Your task to perform on an android device: Clear all items from cart on newegg. Add "razer nari" to the cart on newegg Image 0: 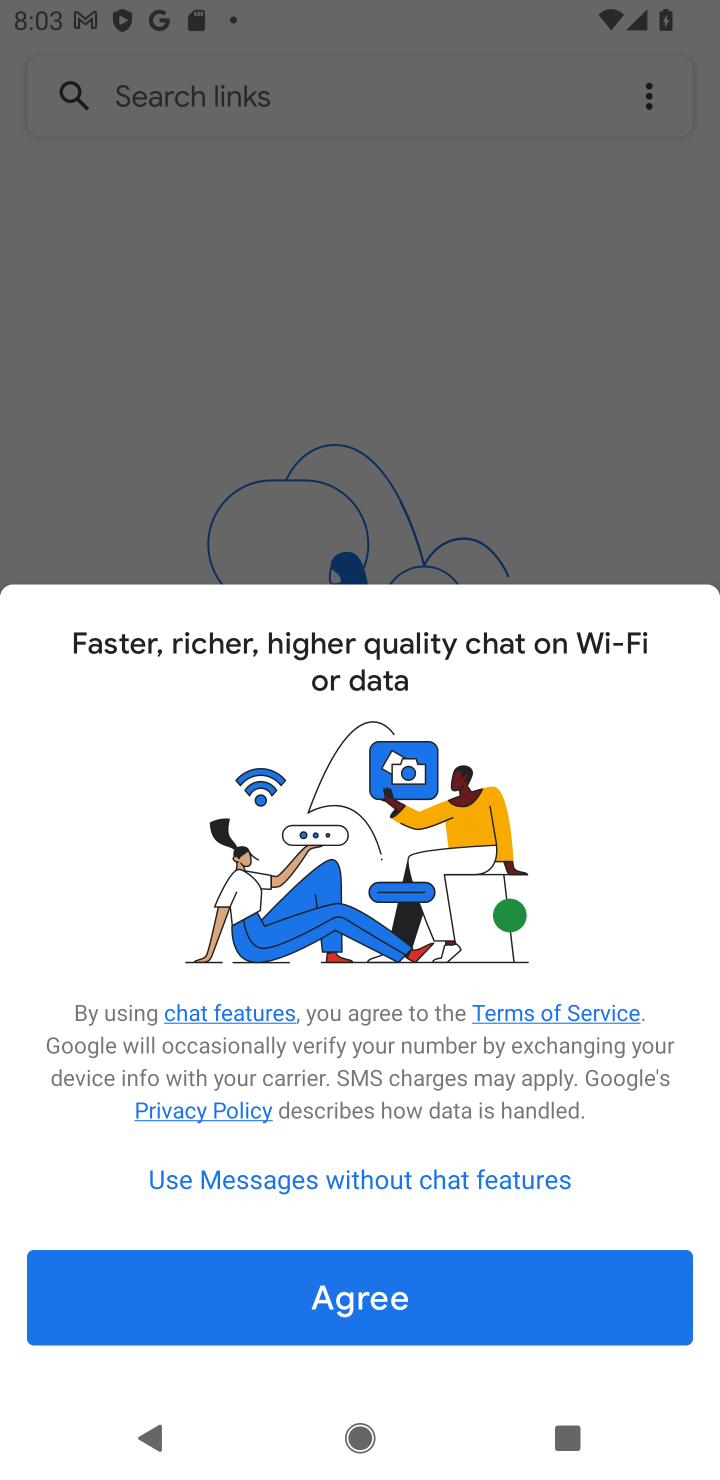
Step 0: press home button
Your task to perform on an android device: Clear all items from cart on newegg. Add "razer nari" to the cart on newegg Image 1: 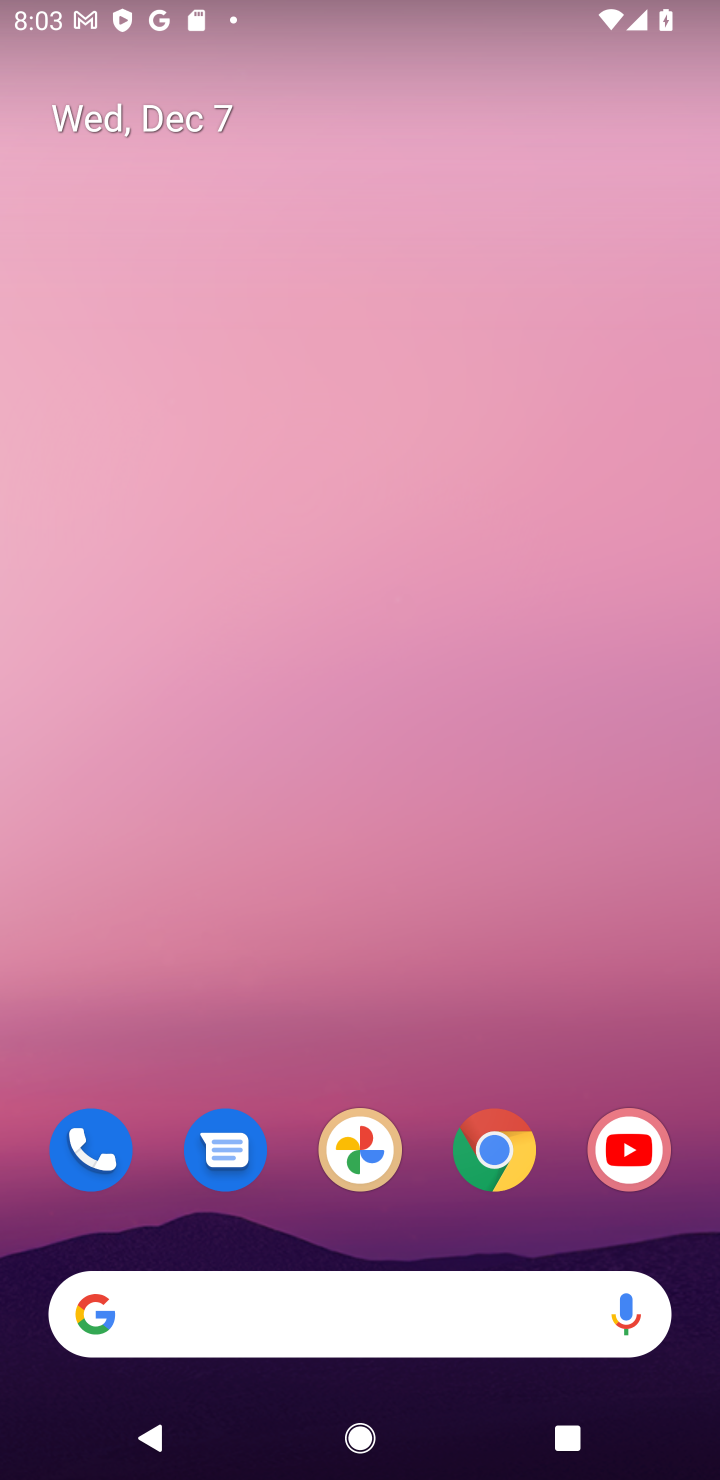
Step 1: click (511, 1151)
Your task to perform on an android device: Clear all items from cart on newegg. Add "razer nari" to the cart on newegg Image 2: 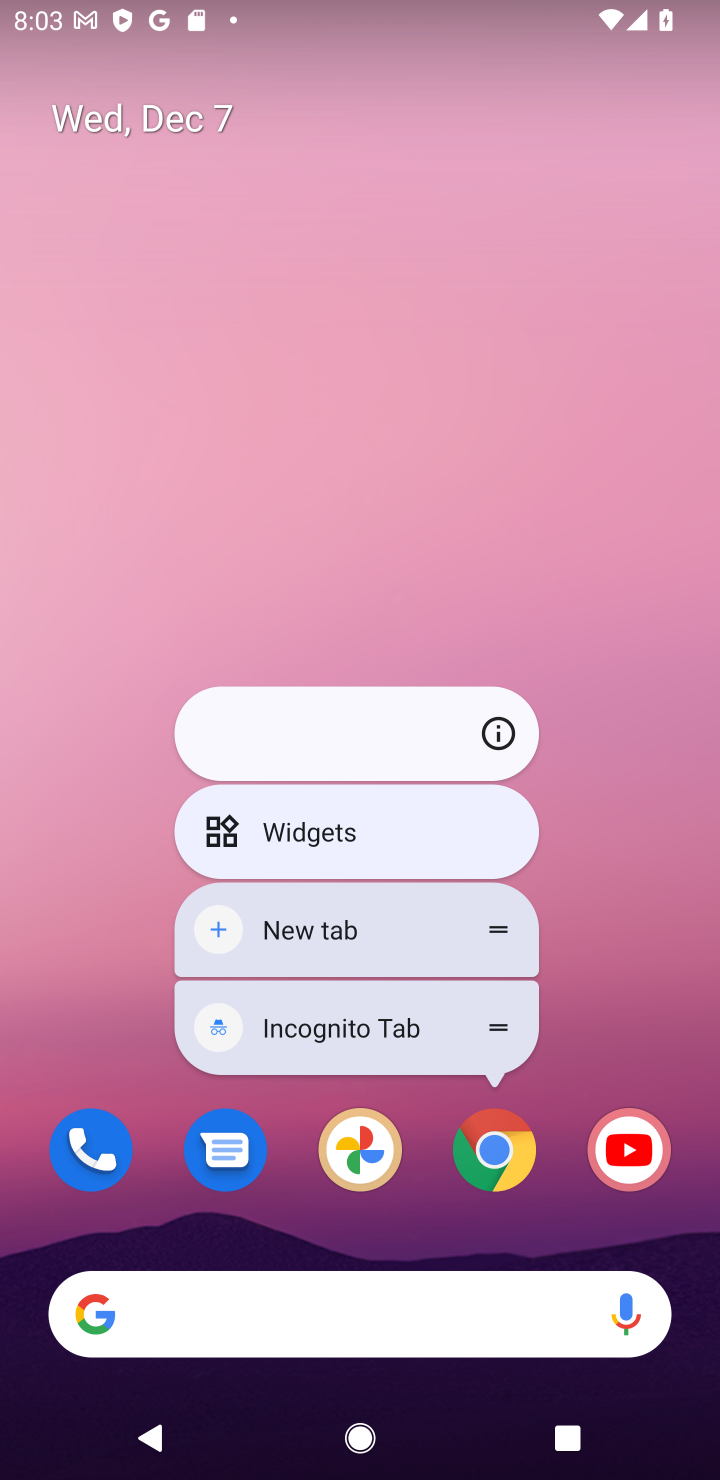
Step 2: click (511, 1151)
Your task to perform on an android device: Clear all items from cart on newegg. Add "razer nari" to the cart on newegg Image 3: 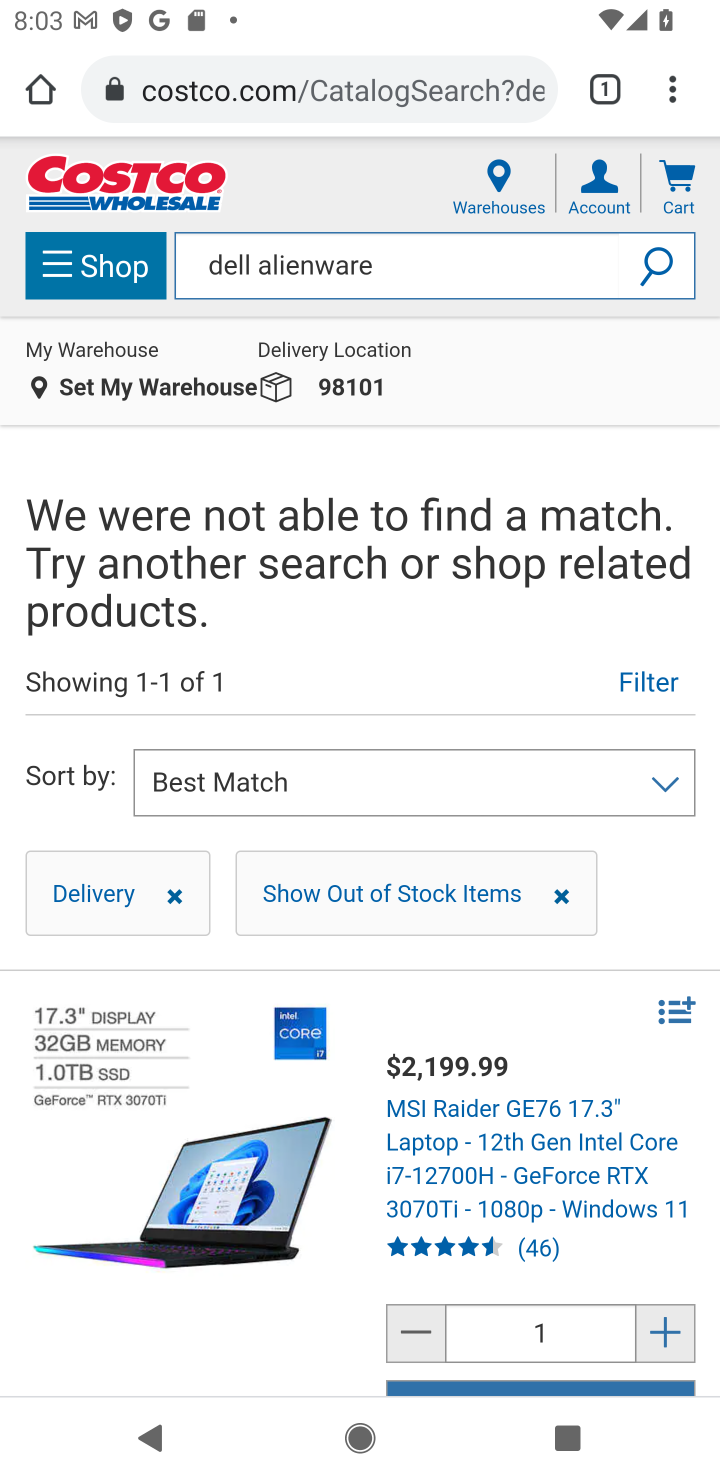
Step 3: click (366, 75)
Your task to perform on an android device: Clear all items from cart on newegg. Add "razer nari" to the cart on newegg Image 4: 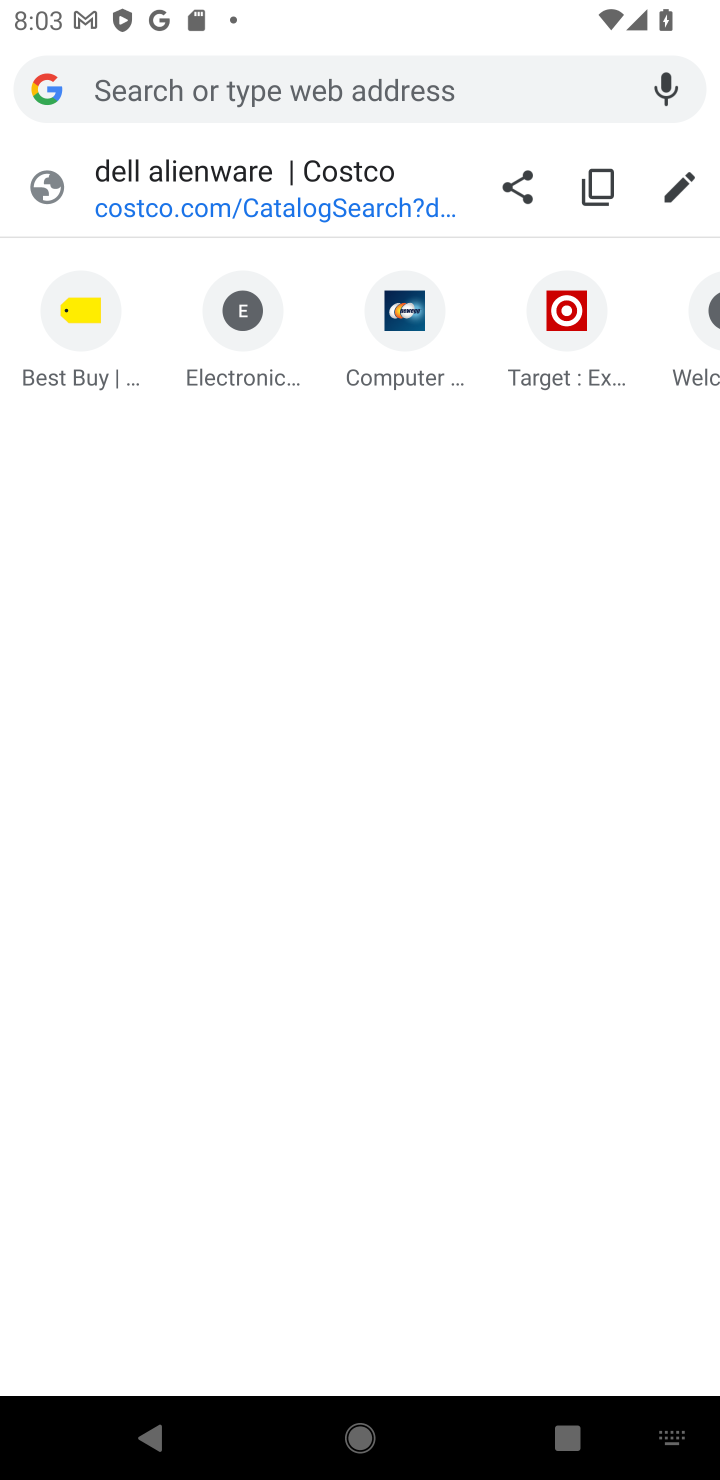
Step 4: type "newegg"
Your task to perform on an android device: Clear all items from cart on newegg. Add "razer nari" to the cart on newegg Image 5: 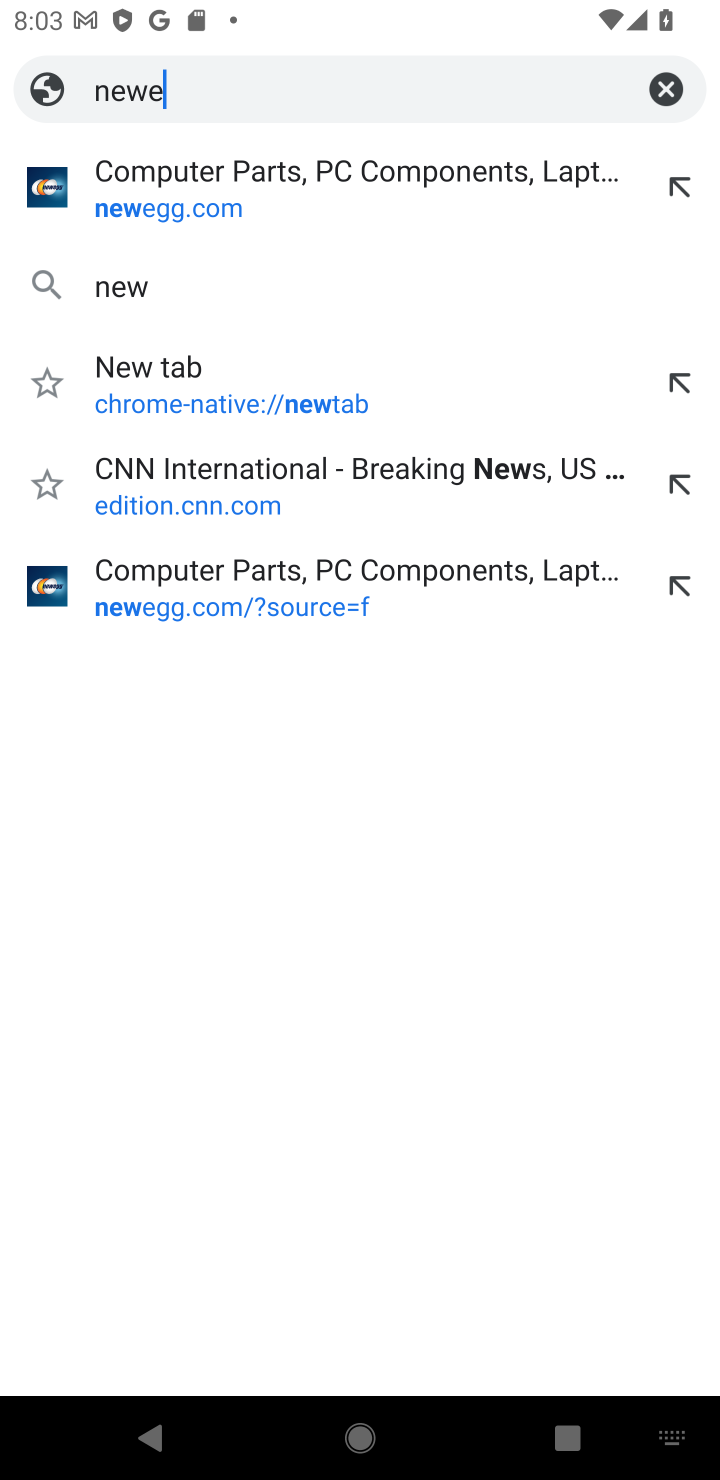
Step 5: press enter
Your task to perform on an android device: Clear all items from cart on newegg. Add "razer nari" to the cart on newegg Image 6: 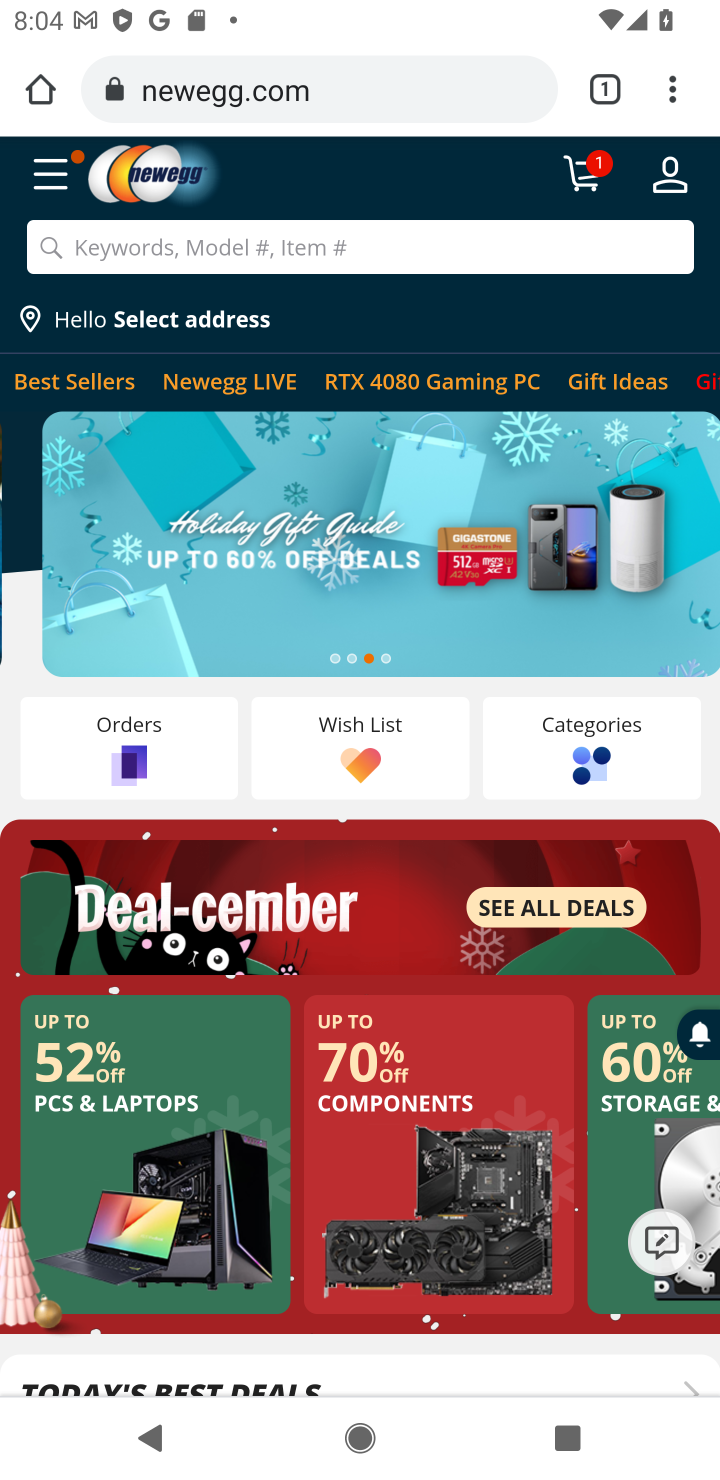
Step 6: click (580, 190)
Your task to perform on an android device: Clear all items from cart on newegg. Add "razer nari" to the cart on newegg Image 7: 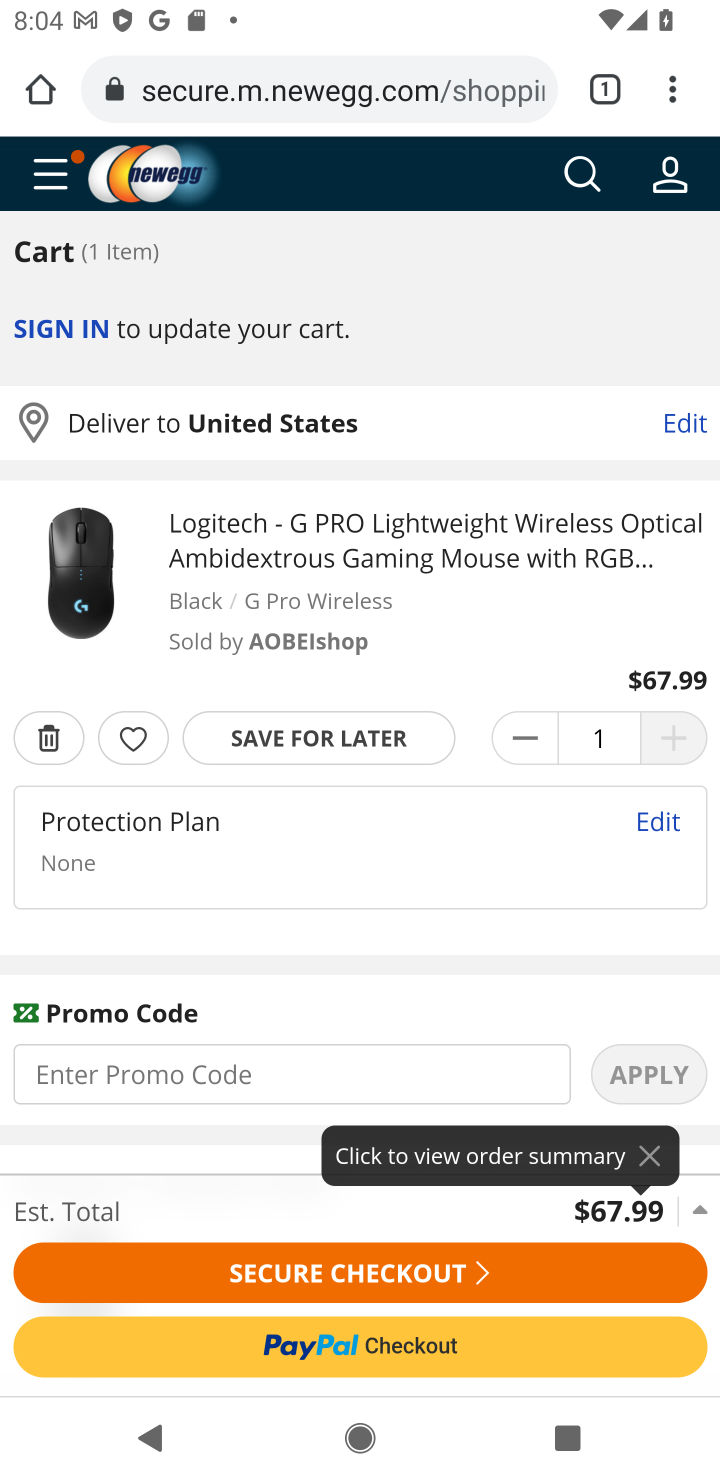
Step 7: click (51, 739)
Your task to perform on an android device: Clear all items from cart on newegg. Add "razer nari" to the cart on newegg Image 8: 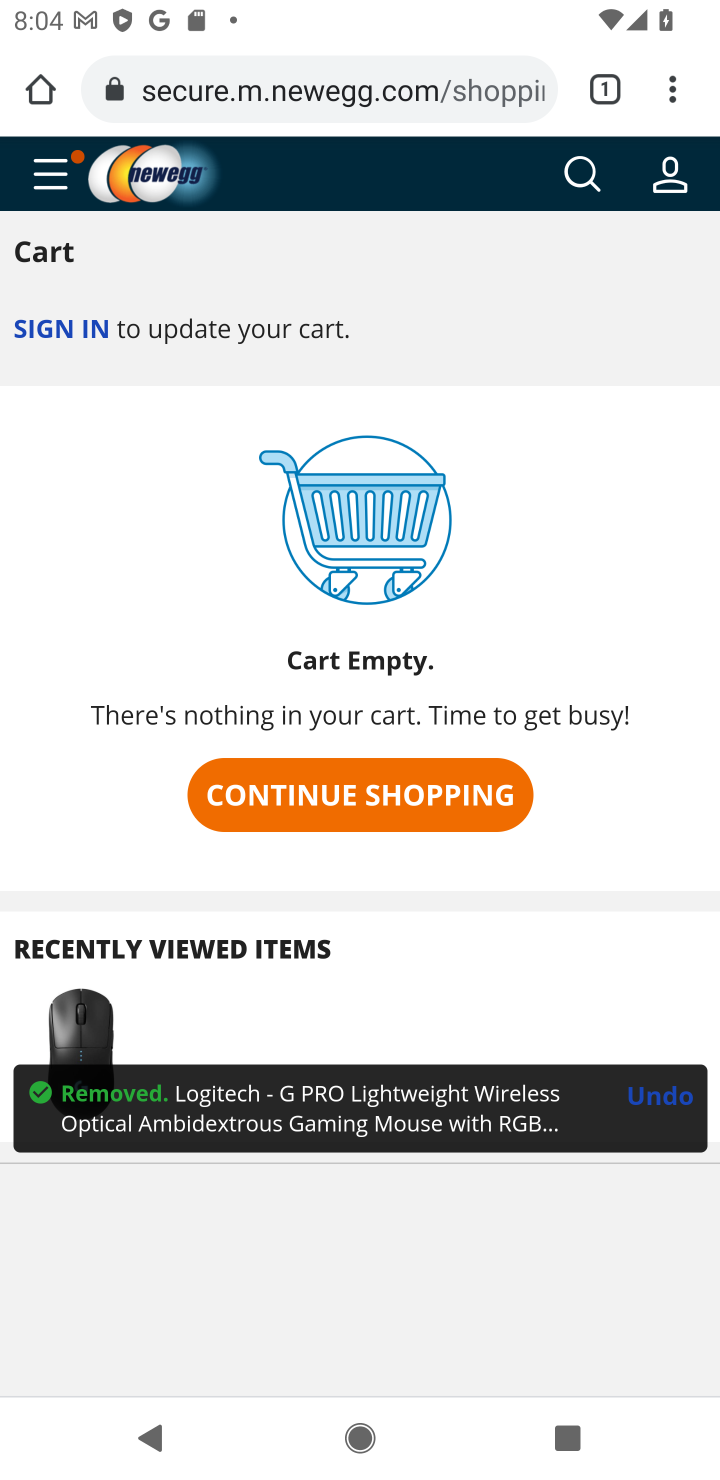
Step 8: click (575, 178)
Your task to perform on an android device: Clear all items from cart on newegg. Add "razer nari" to the cart on newegg Image 9: 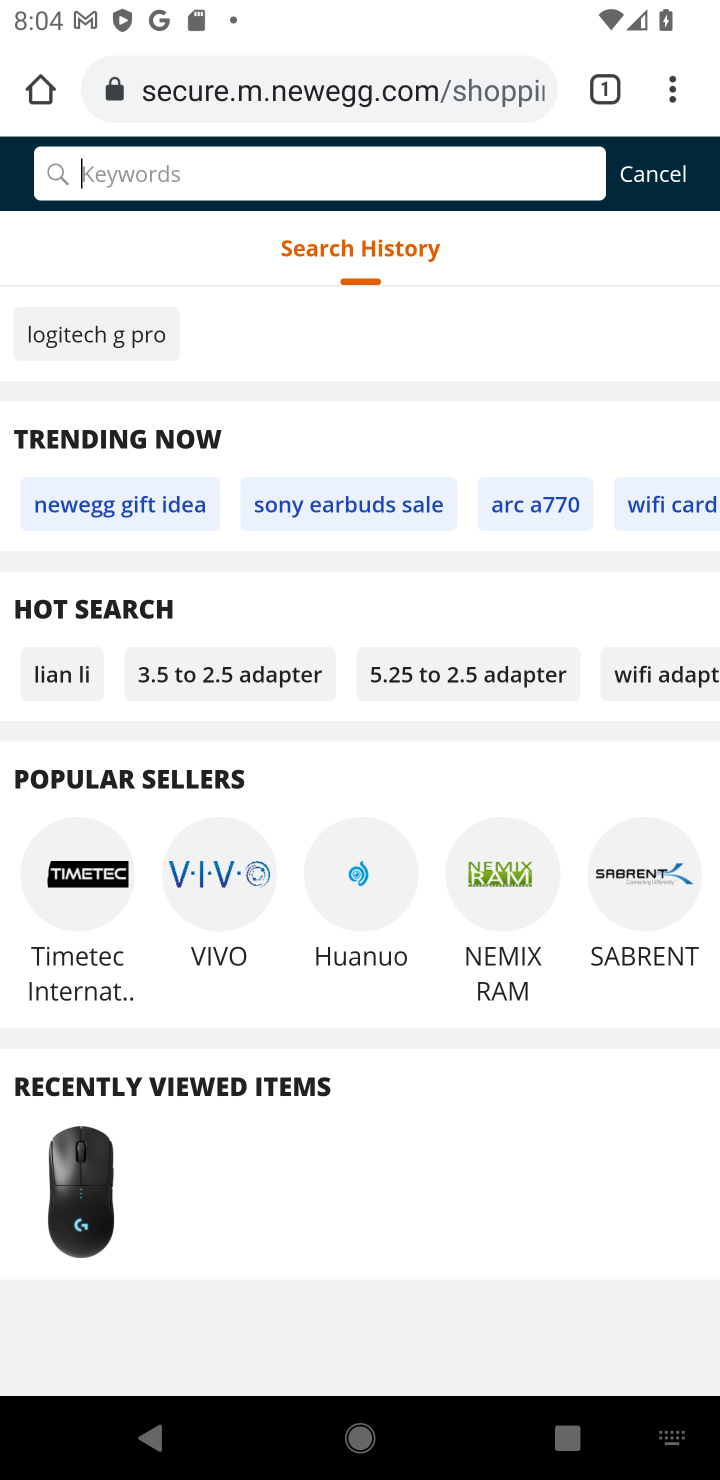
Step 9: press enter
Your task to perform on an android device: Clear all items from cart on newegg. Add "razer nari" to the cart on newegg Image 10: 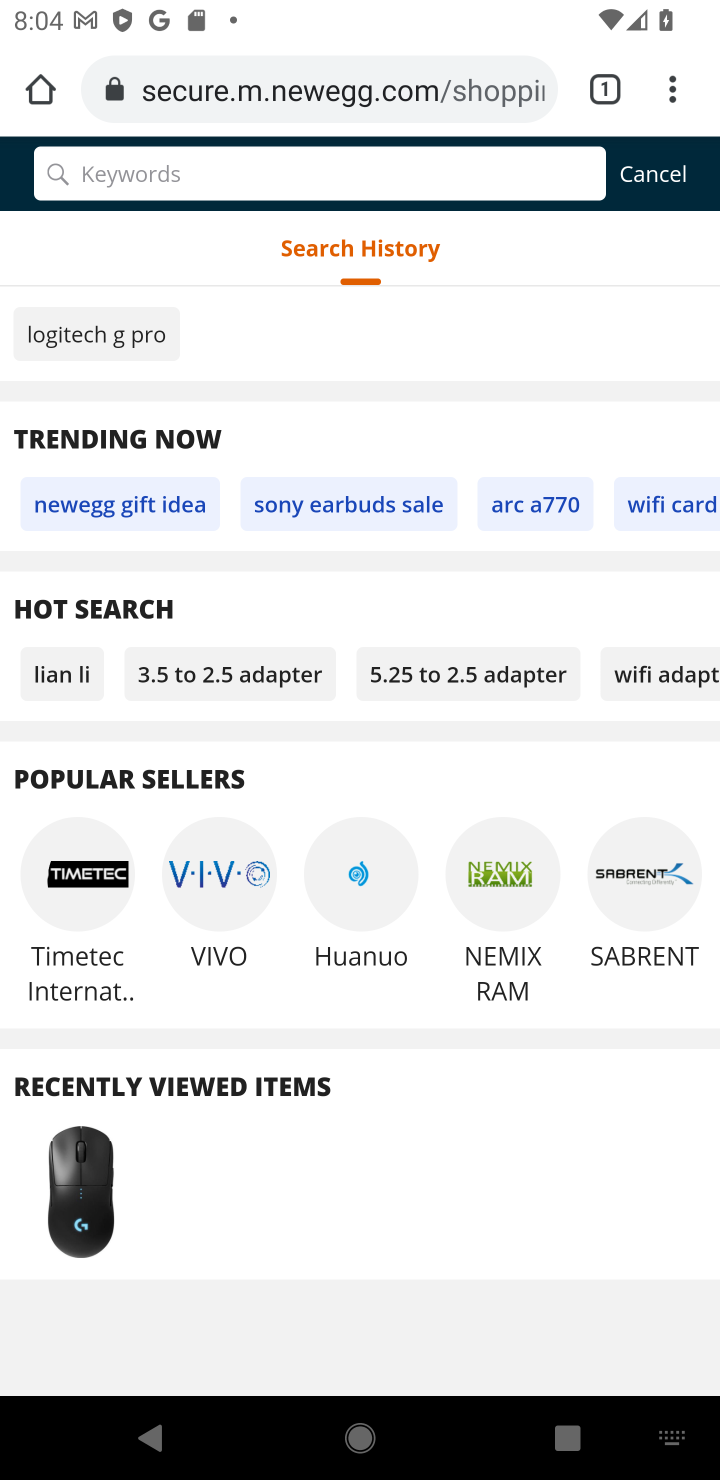
Step 10: type "razer nari"
Your task to perform on an android device: Clear all items from cart on newegg. Add "razer nari" to the cart on newegg Image 11: 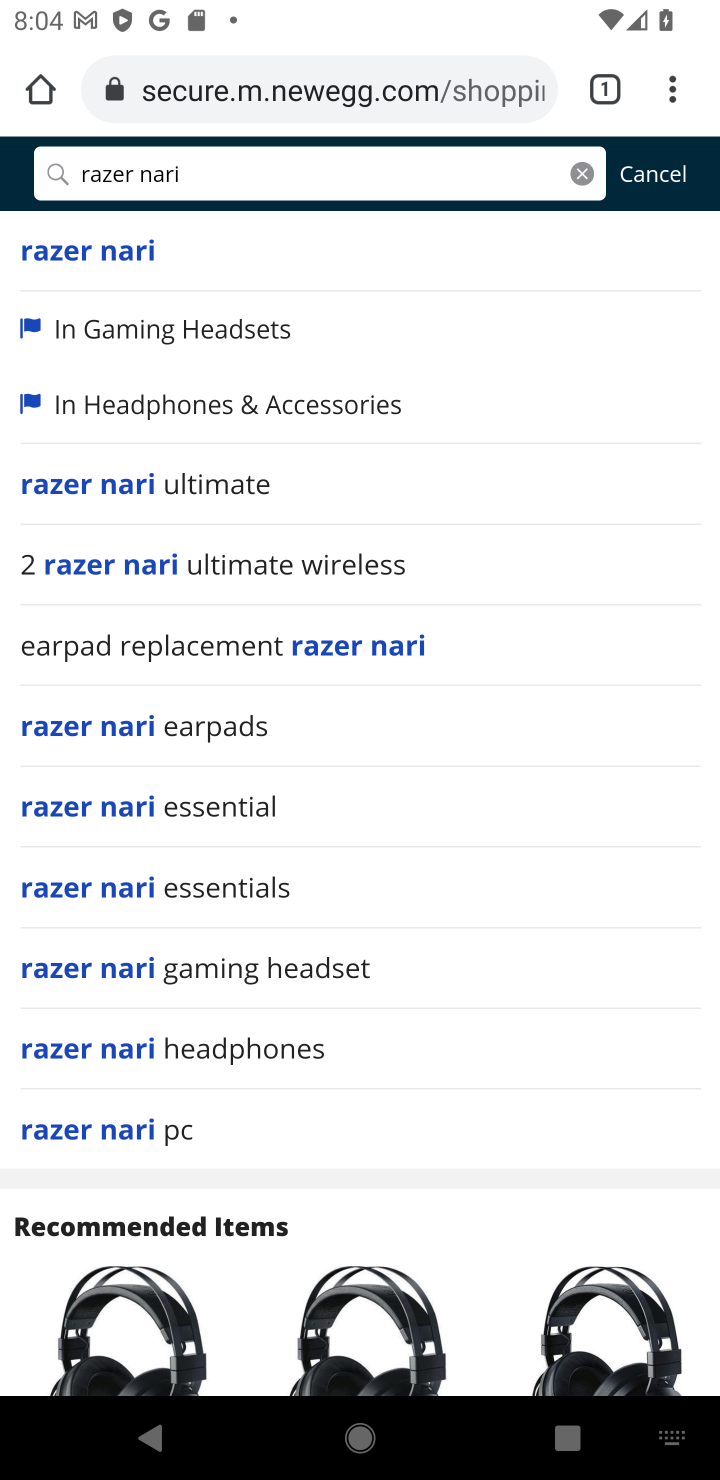
Step 11: click (115, 253)
Your task to perform on an android device: Clear all items from cart on newegg. Add "razer nari" to the cart on newegg Image 12: 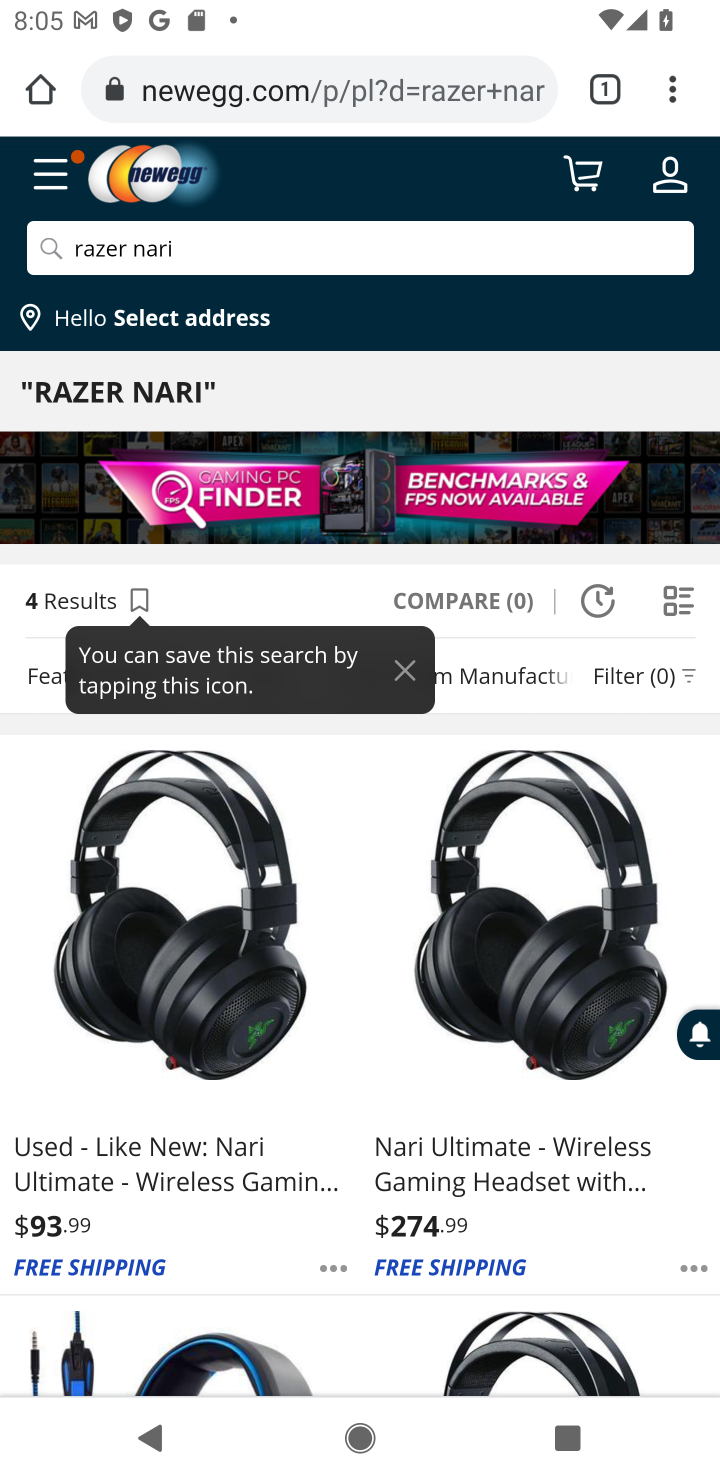
Step 12: drag from (461, 1123) to (447, 399)
Your task to perform on an android device: Clear all items from cart on newegg. Add "razer nari" to the cart on newegg Image 13: 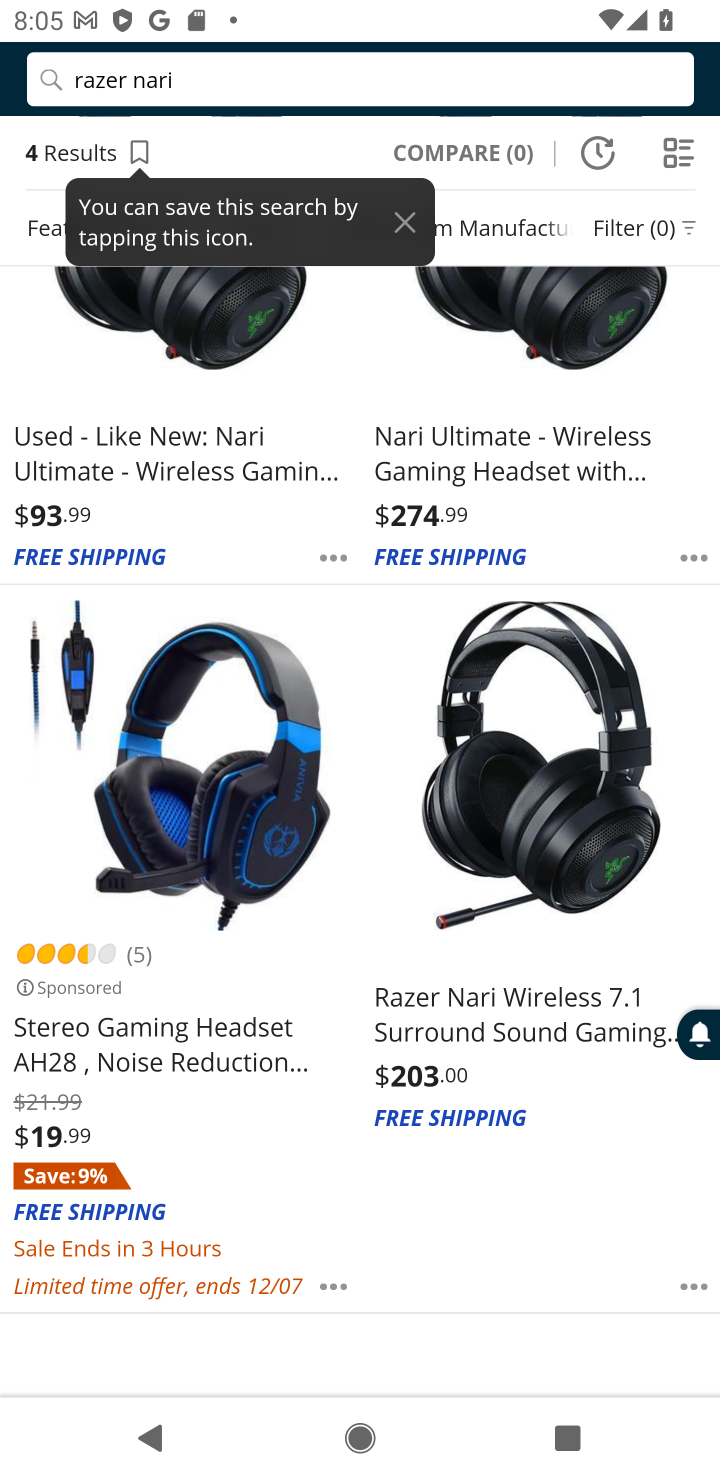
Step 13: click (527, 772)
Your task to perform on an android device: Clear all items from cart on newegg. Add "razer nari" to the cart on newegg Image 14: 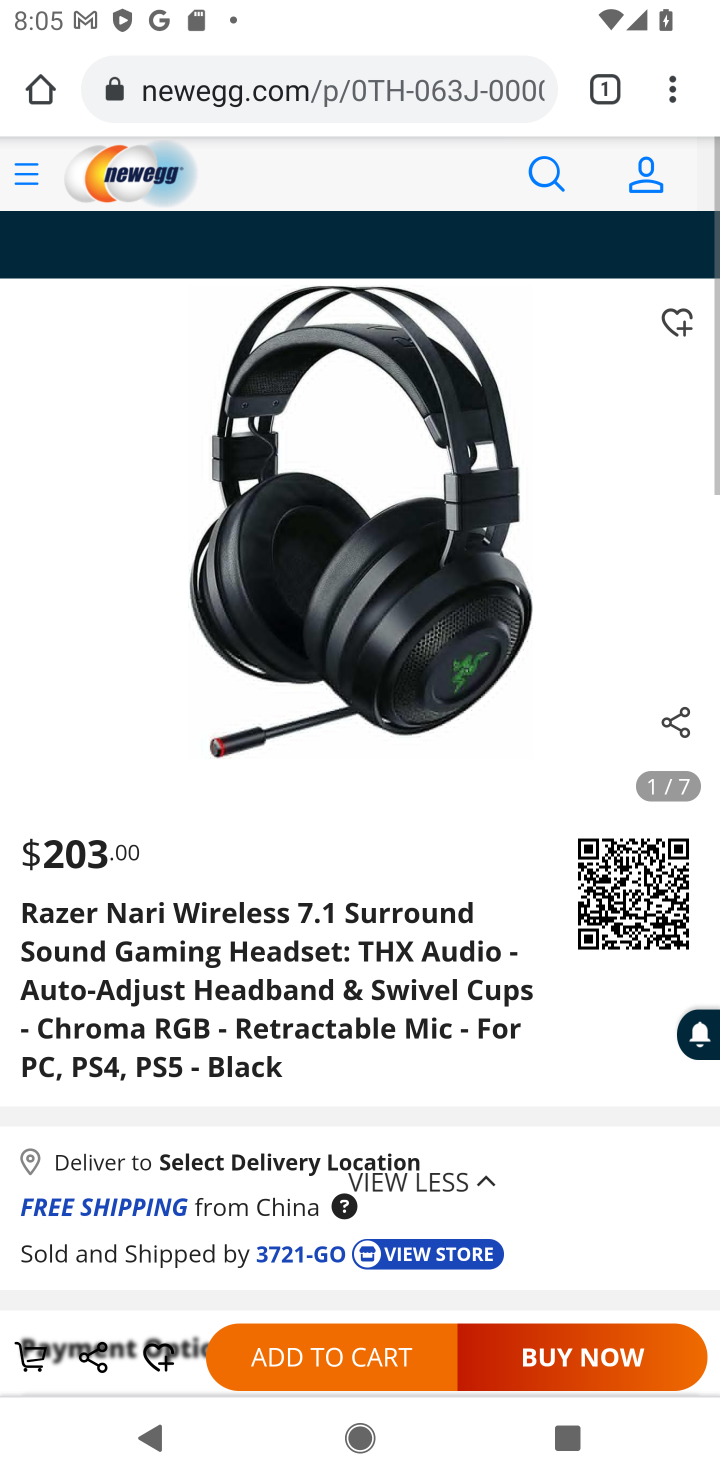
Step 14: drag from (577, 1143) to (450, 659)
Your task to perform on an android device: Clear all items from cart on newegg. Add "razer nari" to the cart on newegg Image 15: 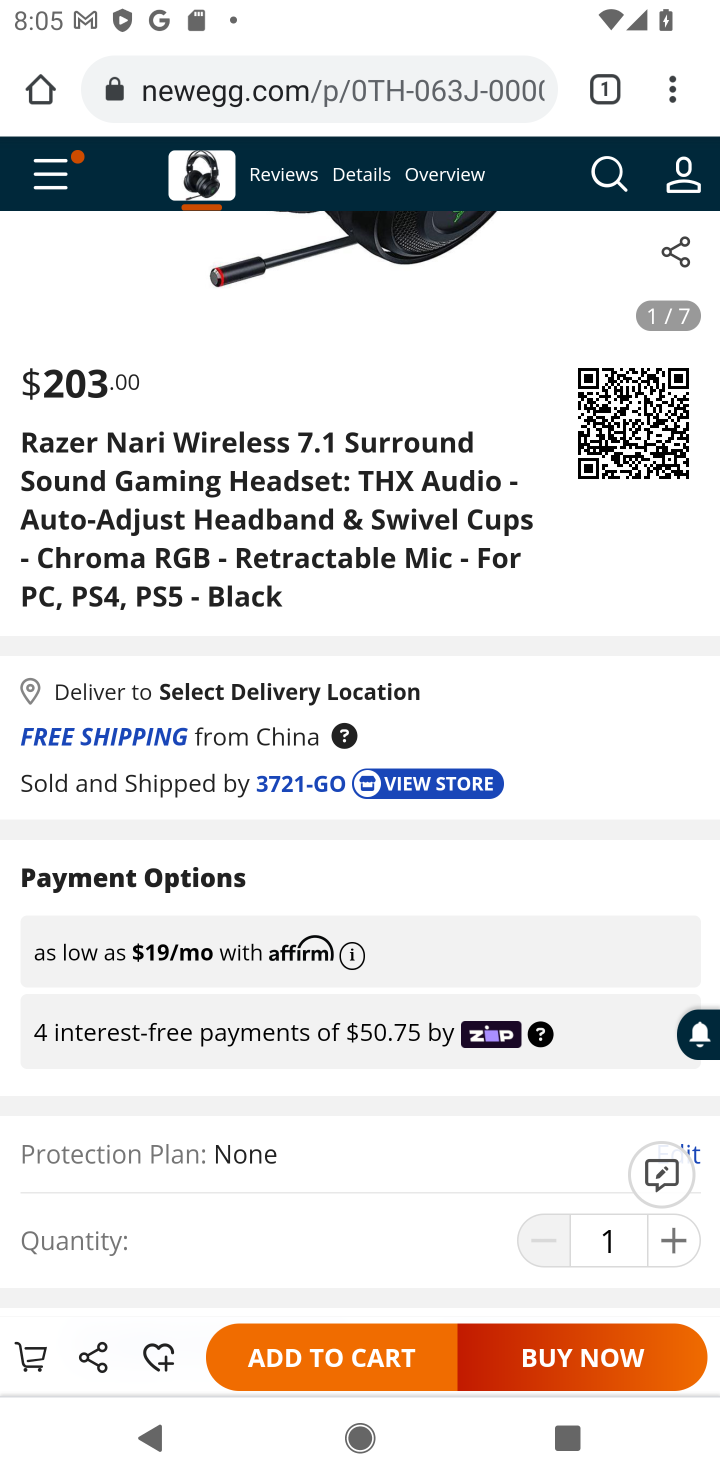
Step 15: click (334, 1354)
Your task to perform on an android device: Clear all items from cart on newegg. Add "razer nari" to the cart on newegg Image 16: 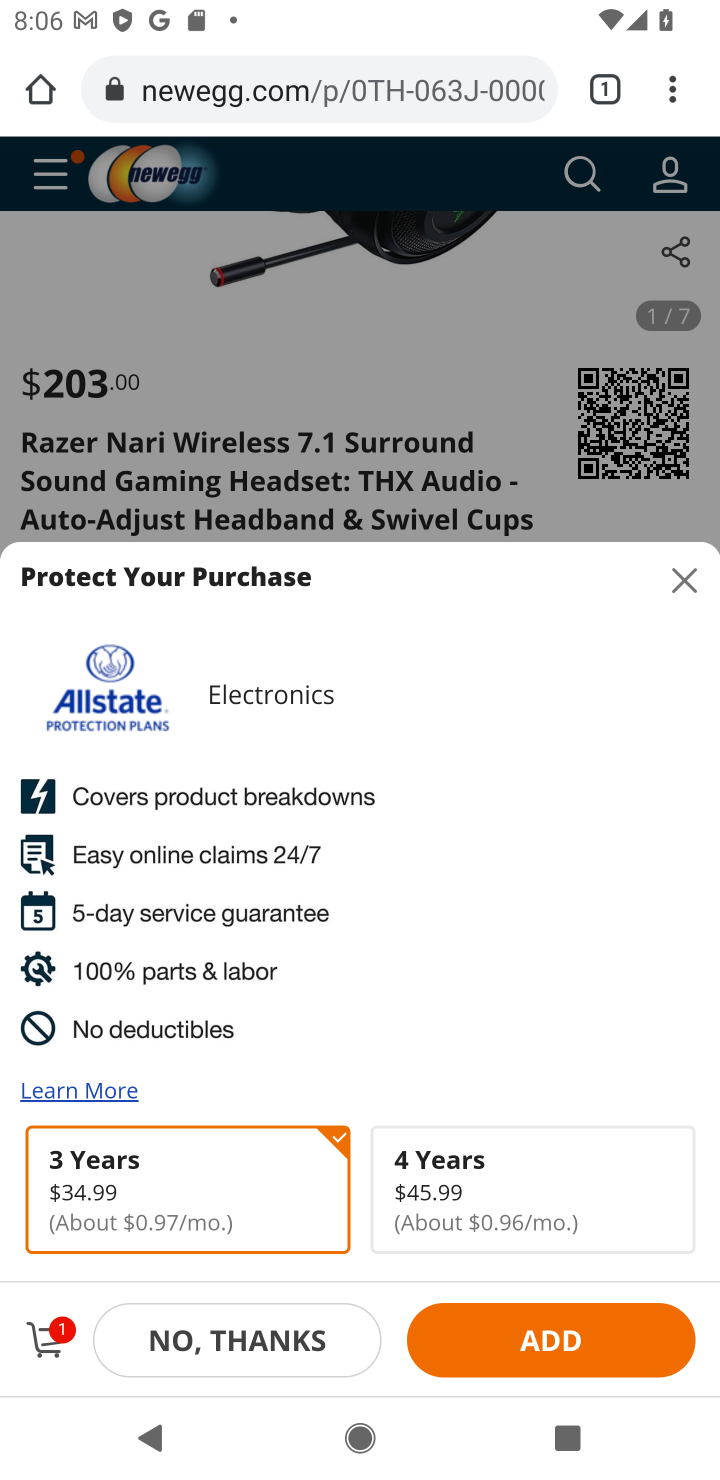
Step 16: click (42, 1342)
Your task to perform on an android device: Clear all items from cart on newegg. Add "razer nari" to the cart on newegg Image 17: 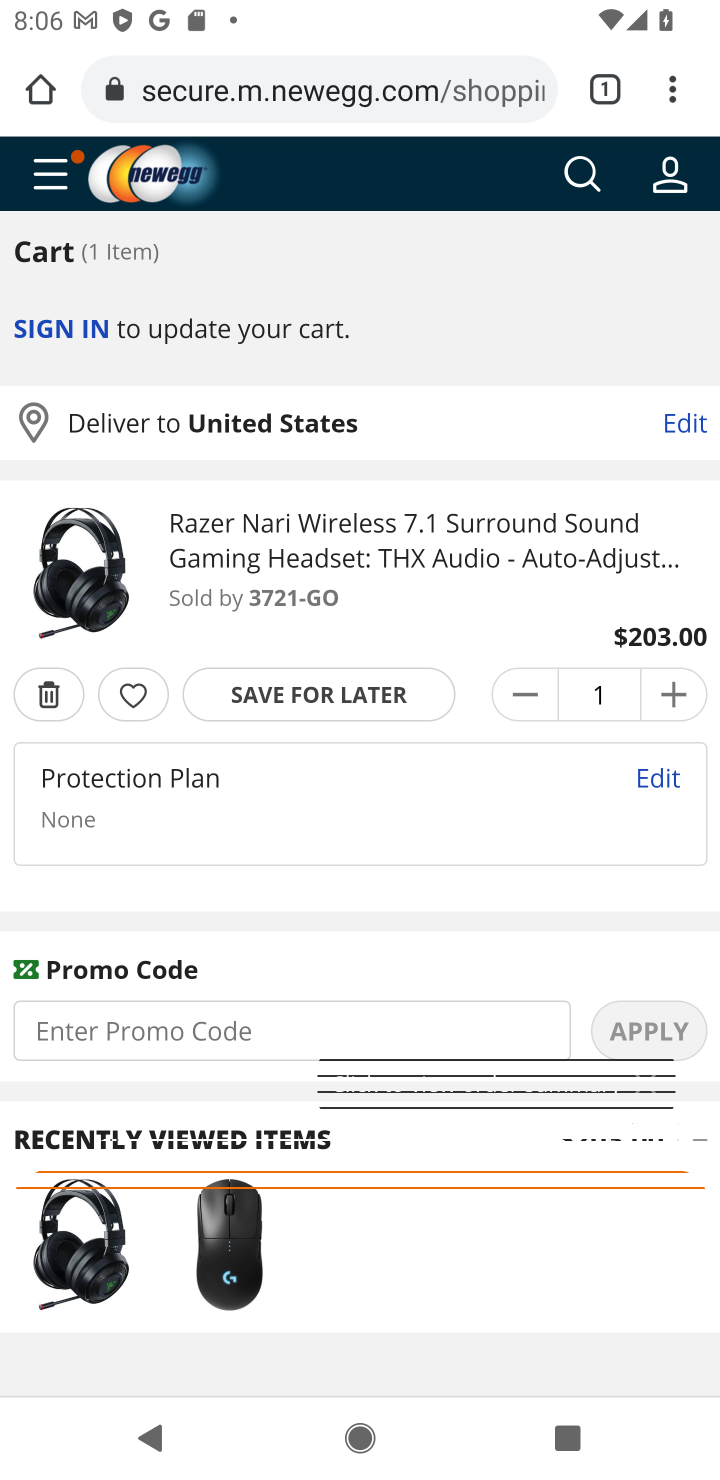
Step 17: task complete